Your task to perform on an android device: Search for a new phone on Amazon. Image 0: 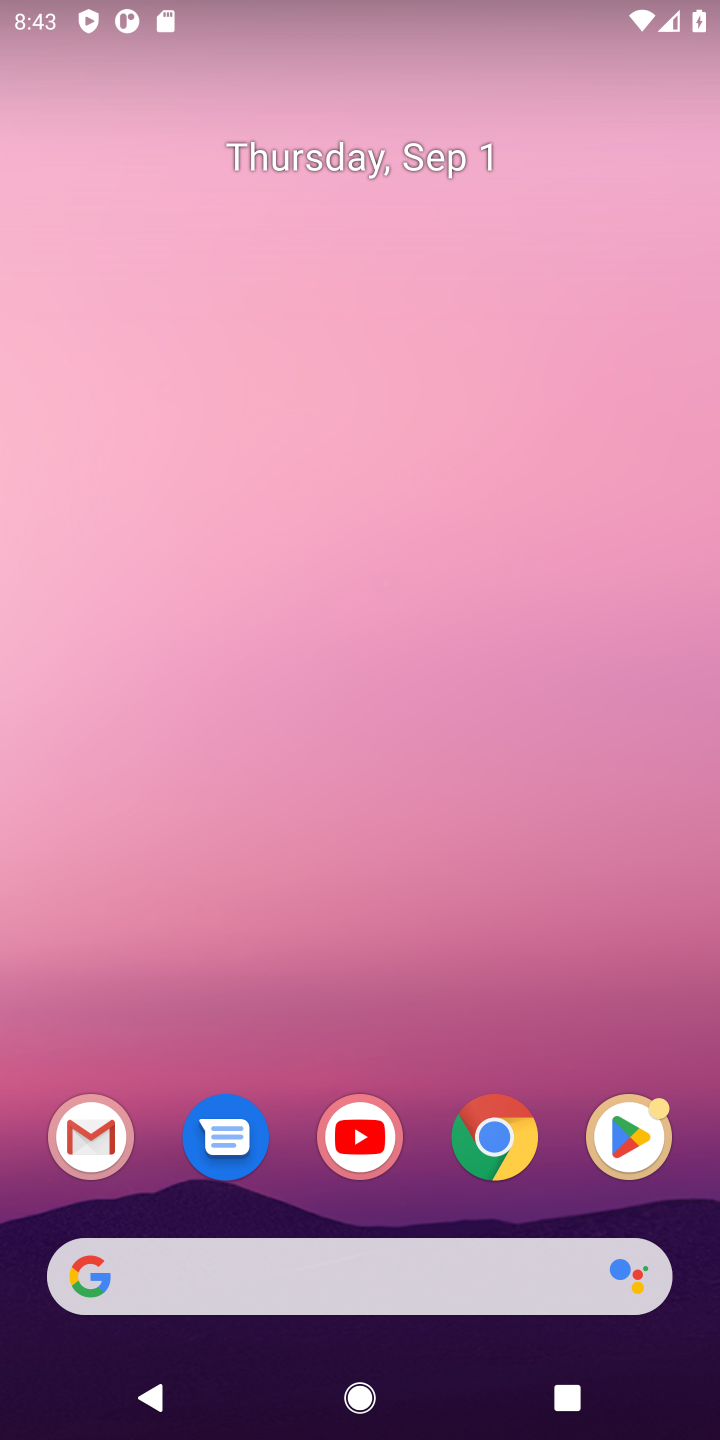
Step 0: press home button
Your task to perform on an android device: Search for a new phone on Amazon. Image 1: 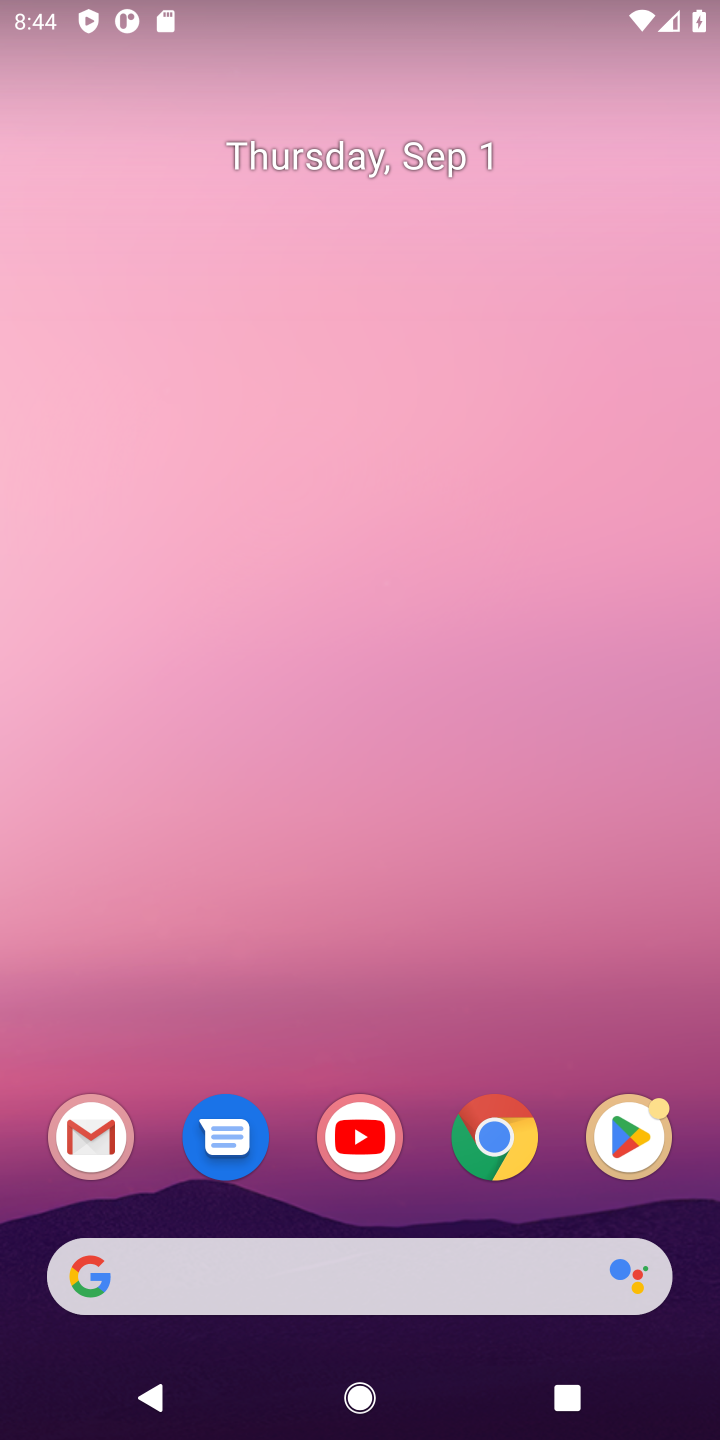
Step 1: drag from (420, 519) to (441, 22)
Your task to perform on an android device: Search for a new phone on Amazon. Image 2: 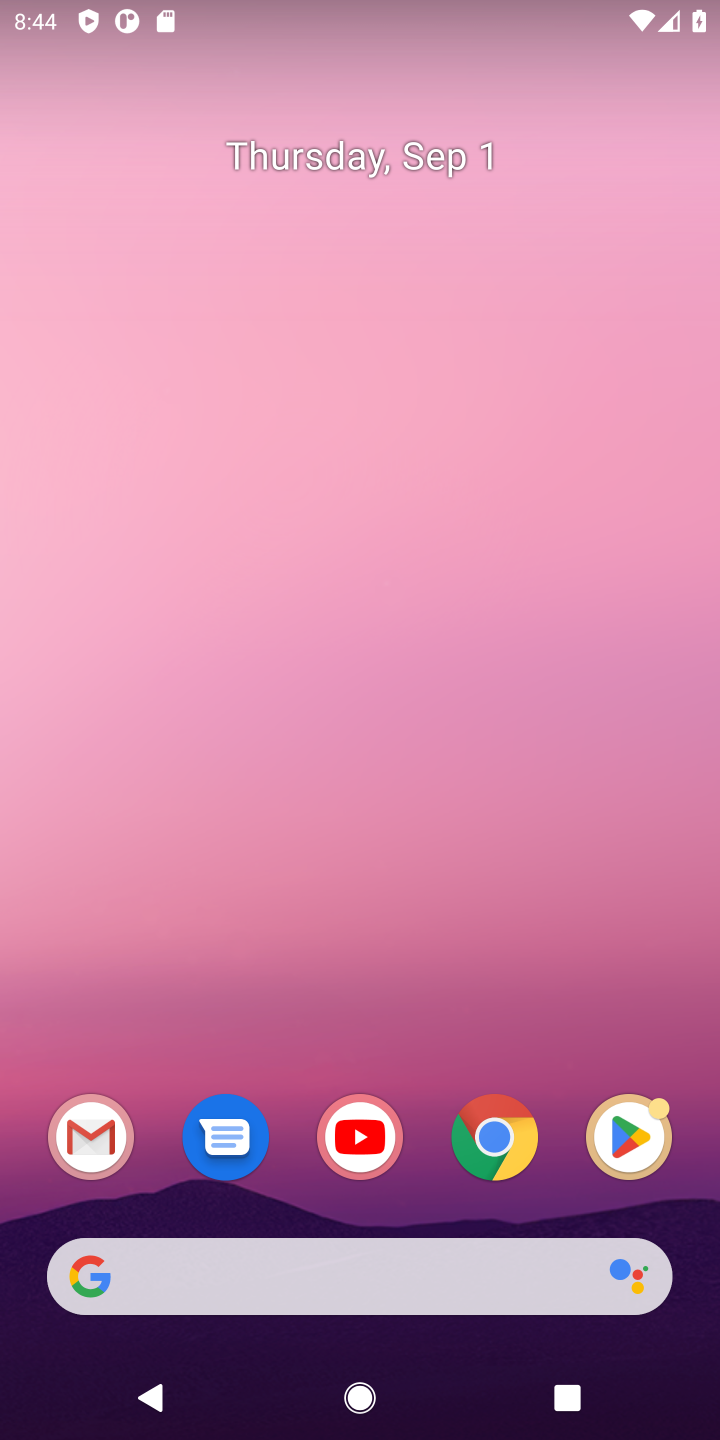
Step 2: drag from (381, 508) to (399, 0)
Your task to perform on an android device: Search for a new phone on Amazon. Image 3: 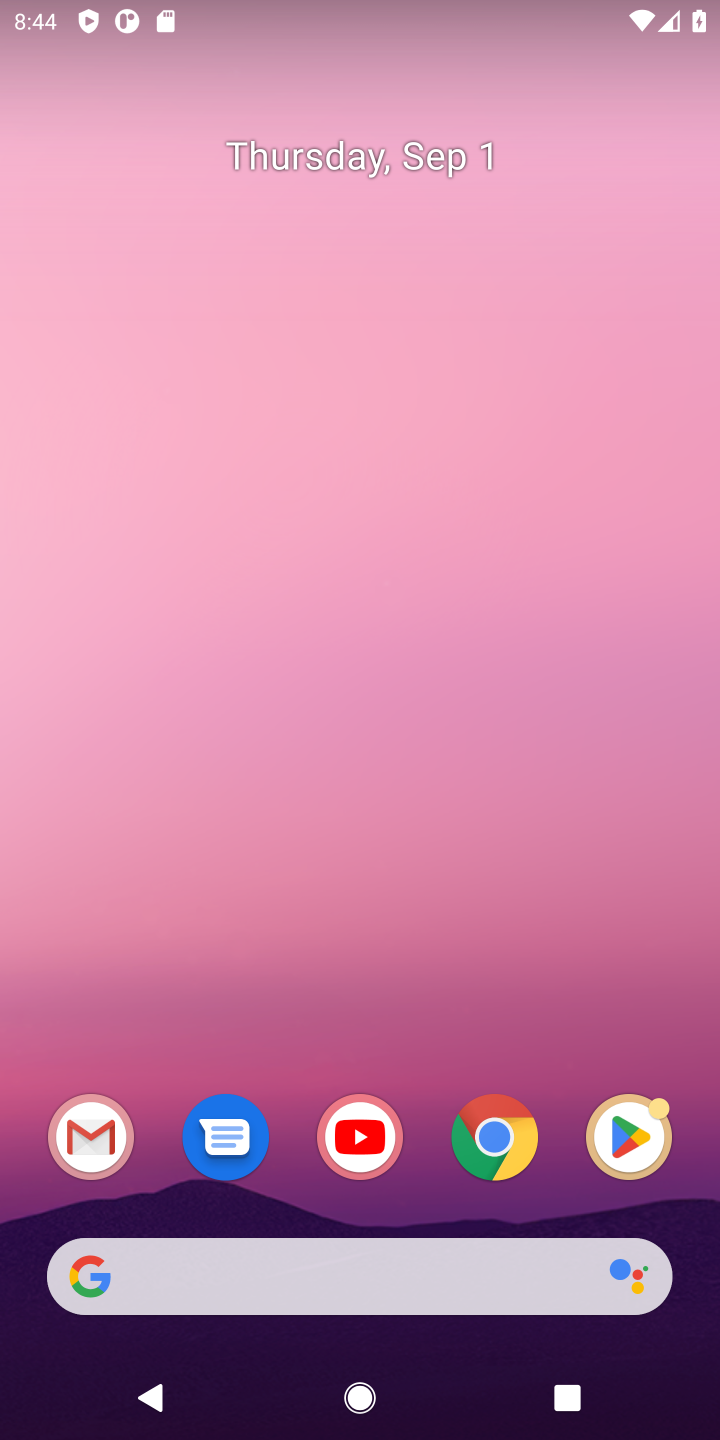
Step 3: drag from (419, 1083) to (448, 0)
Your task to perform on an android device: Search for a new phone on Amazon. Image 4: 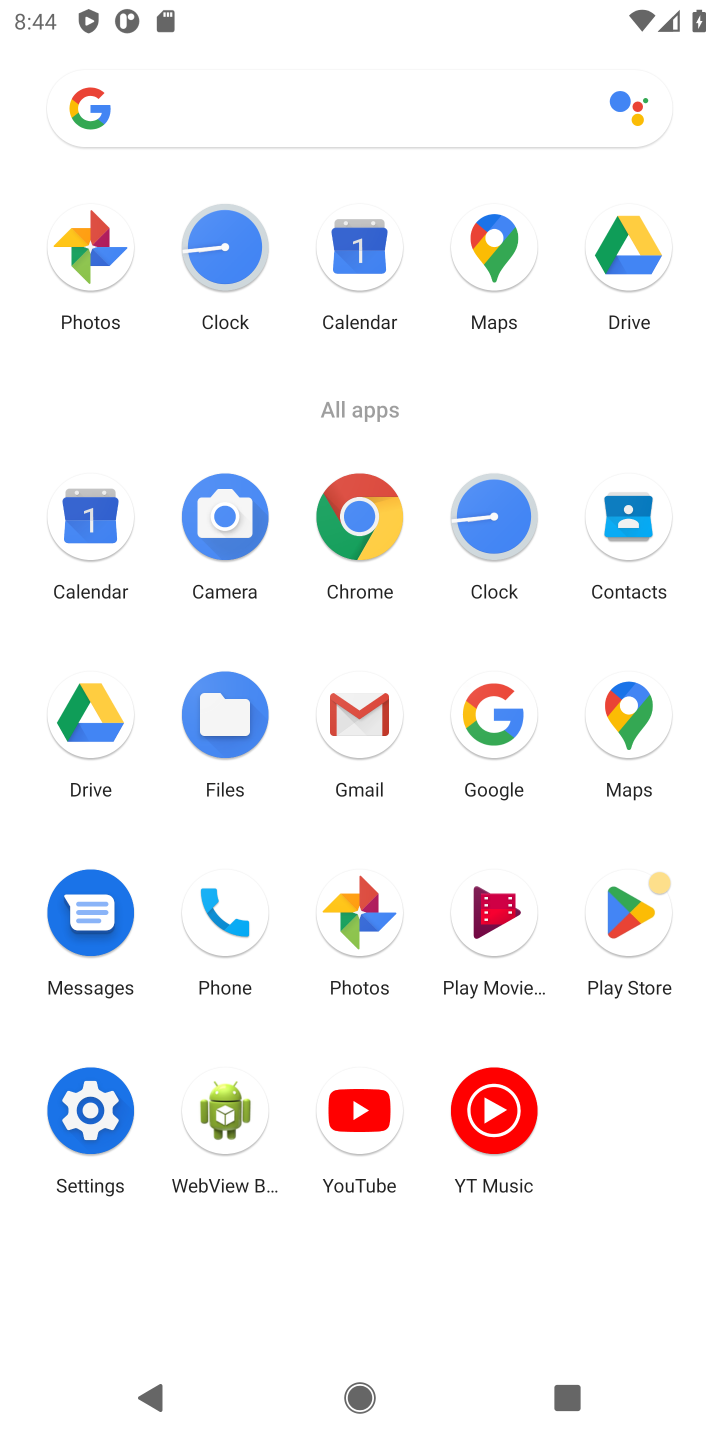
Step 4: click (357, 512)
Your task to perform on an android device: Search for a new phone on Amazon. Image 5: 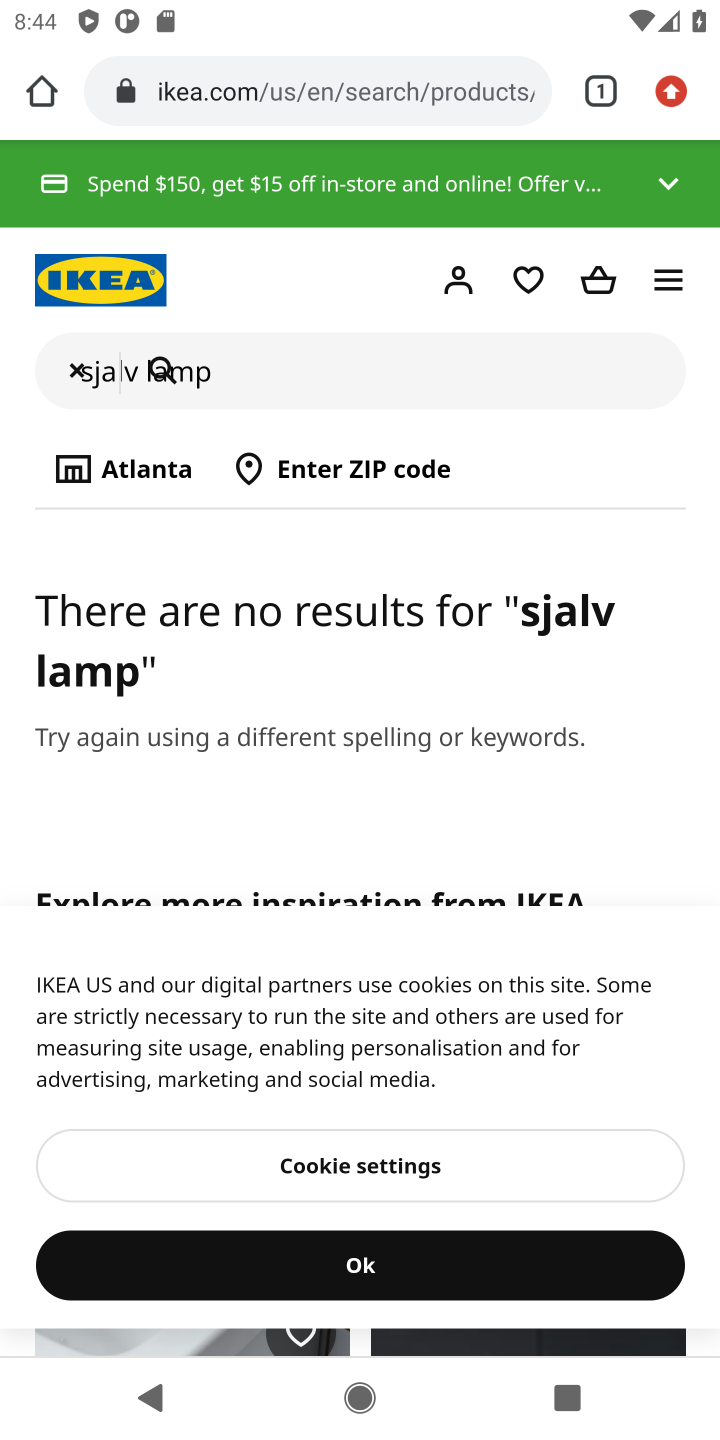
Step 5: click (599, 83)
Your task to perform on an android device: Search for a new phone on Amazon. Image 6: 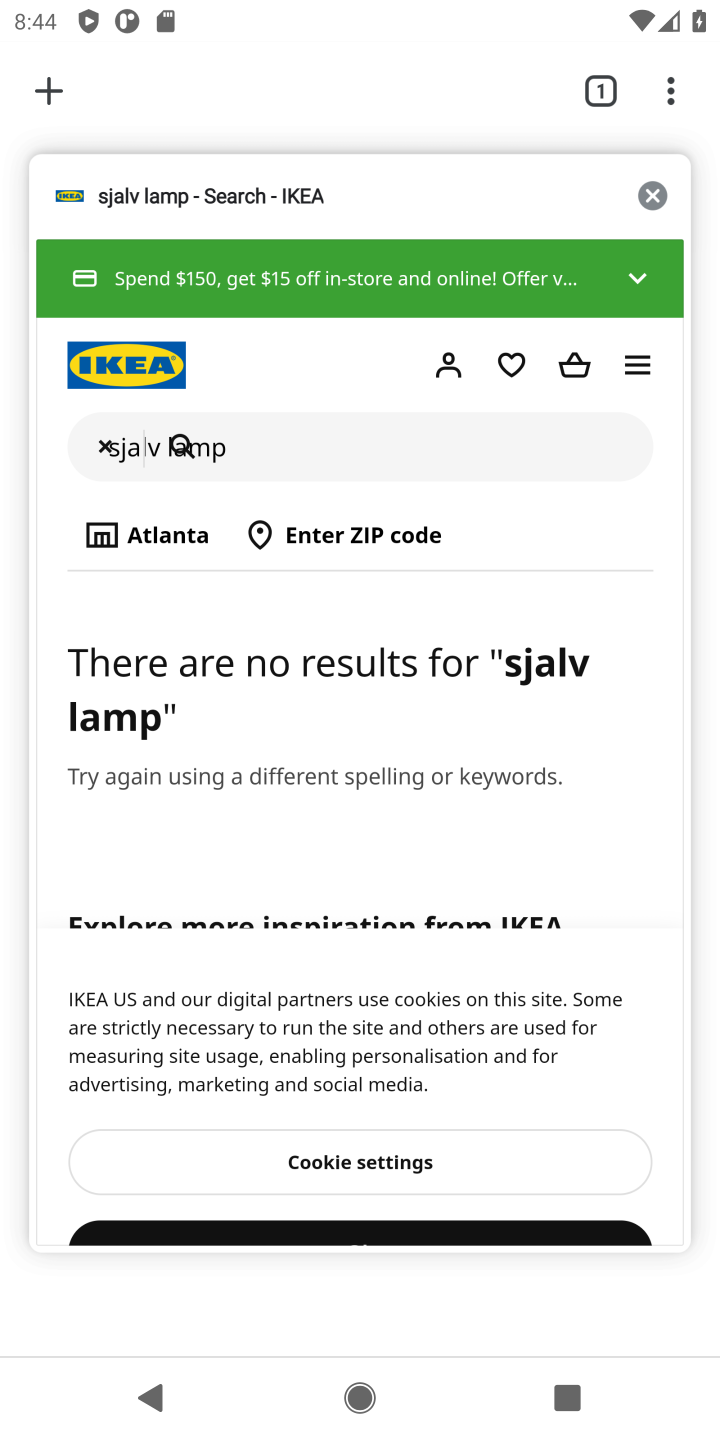
Step 6: click (648, 192)
Your task to perform on an android device: Search for a new phone on Amazon. Image 7: 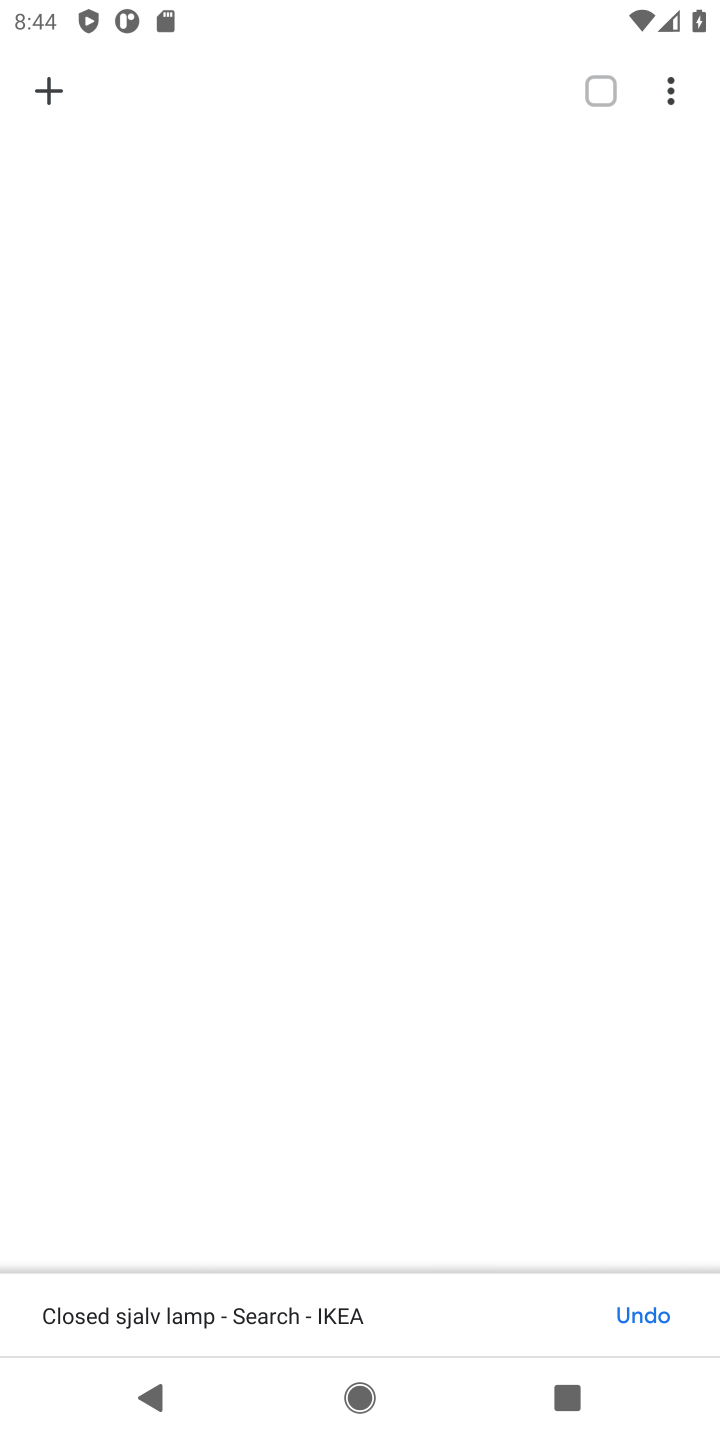
Step 7: click (56, 97)
Your task to perform on an android device: Search for a new phone on Amazon. Image 8: 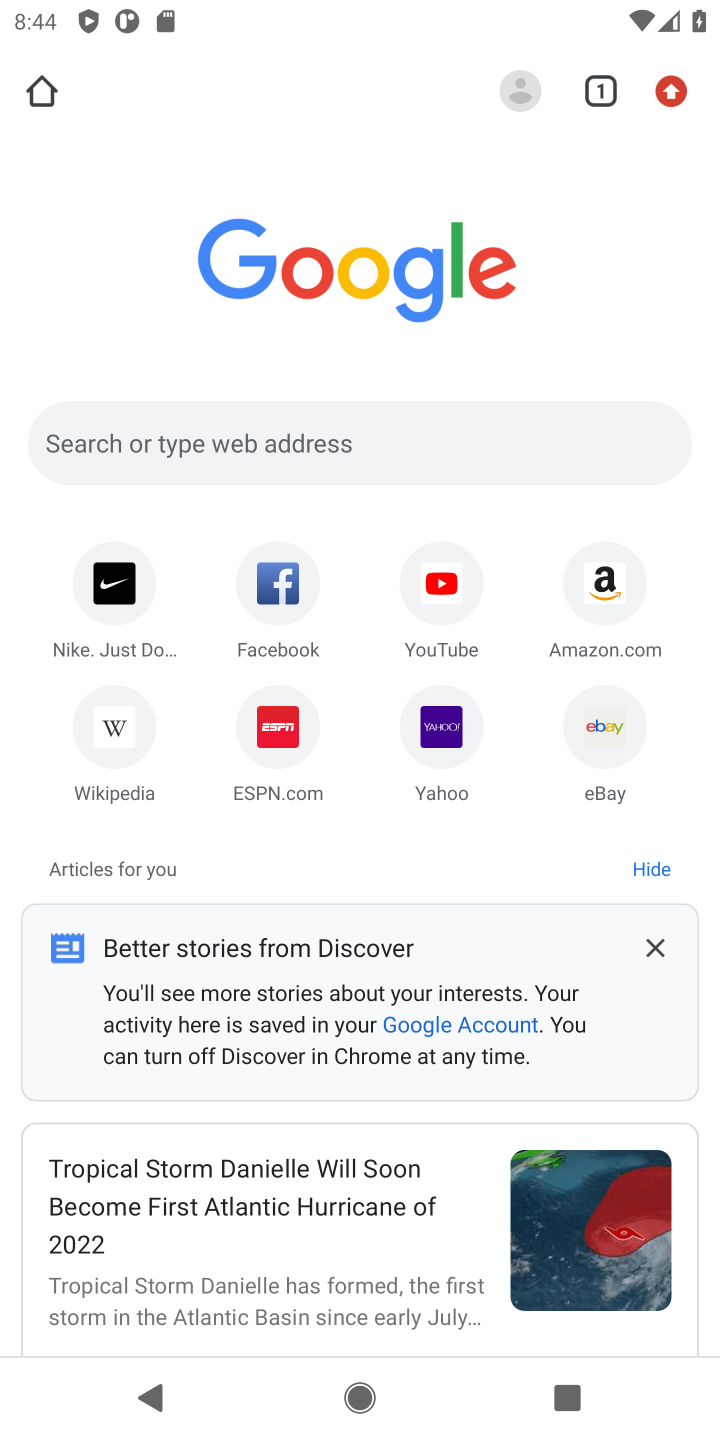
Step 8: click (182, 448)
Your task to perform on an android device: Search for a new phone on Amazon. Image 9: 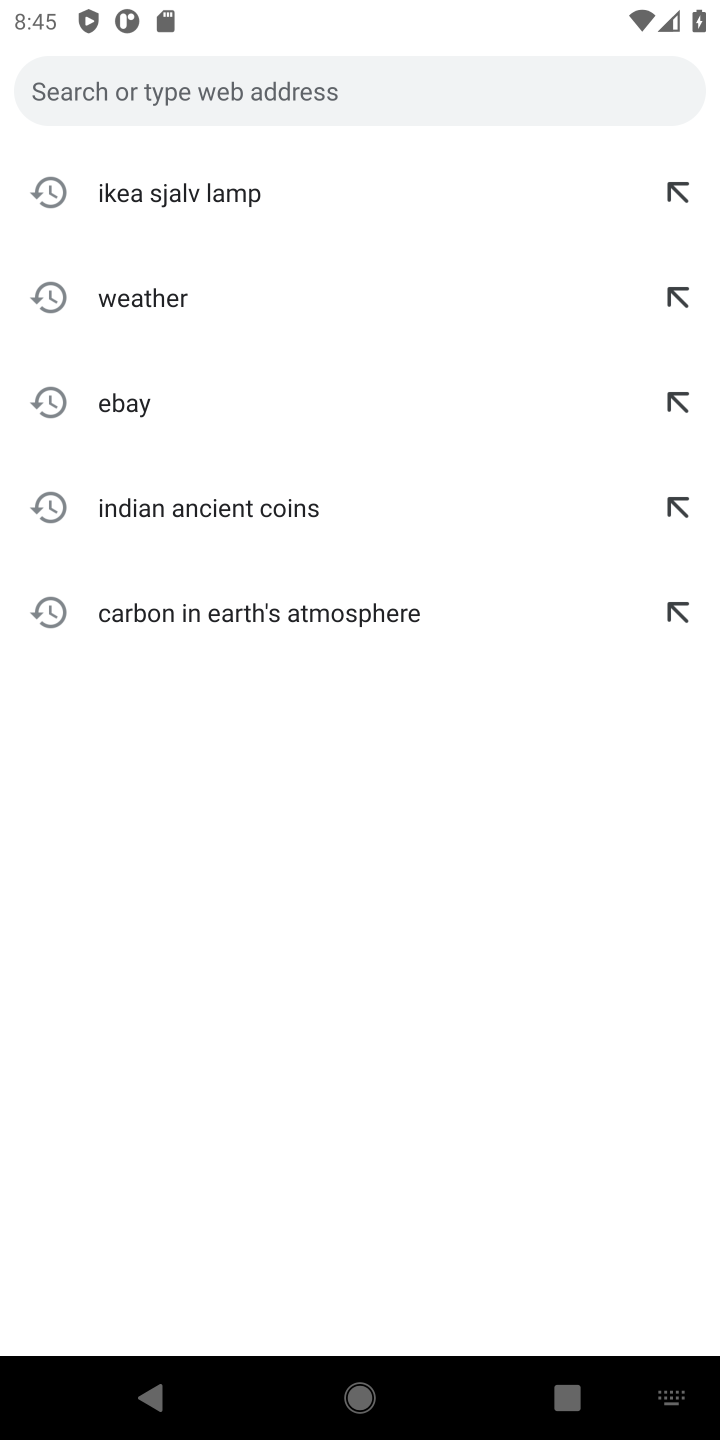
Step 9: press back button
Your task to perform on an android device: Search for a new phone on Amazon. Image 10: 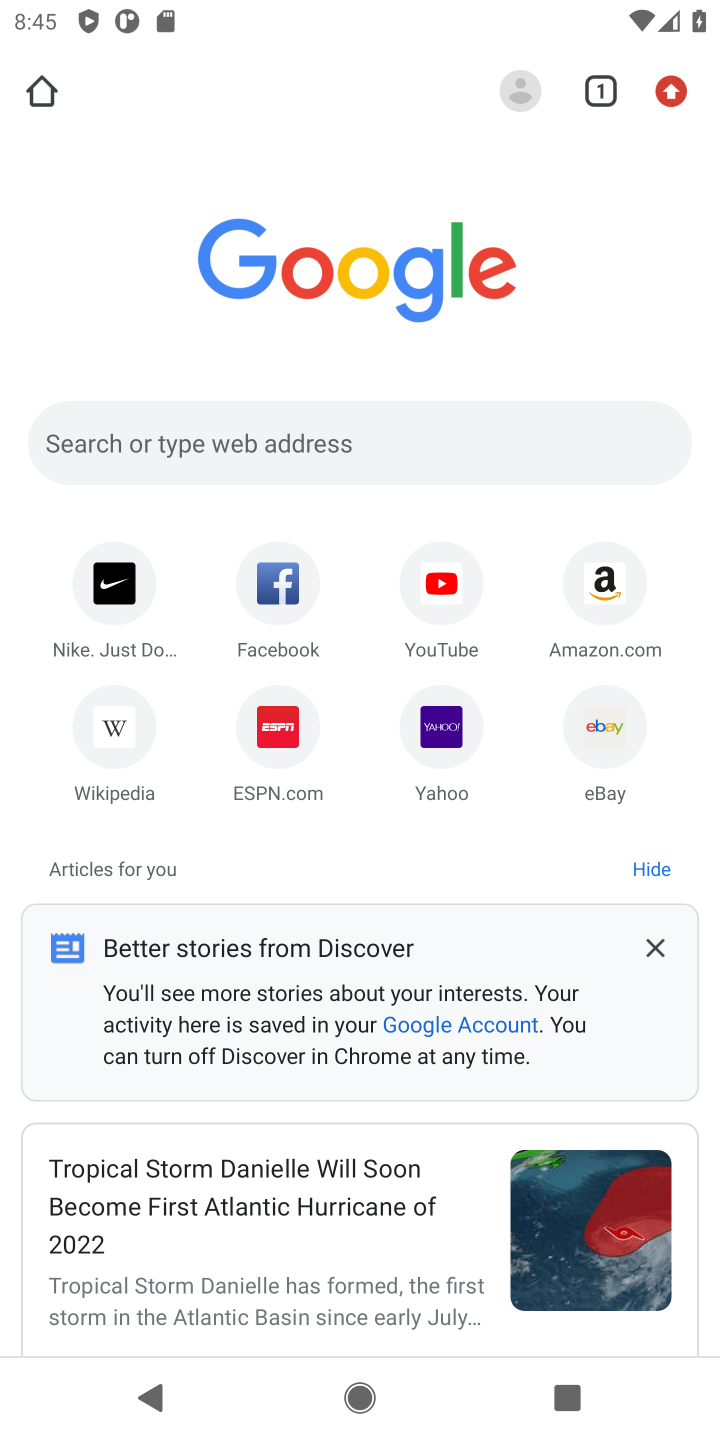
Step 10: click (589, 569)
Your task to perform on an android device: Search for a new phone on Amazon. Image 11: 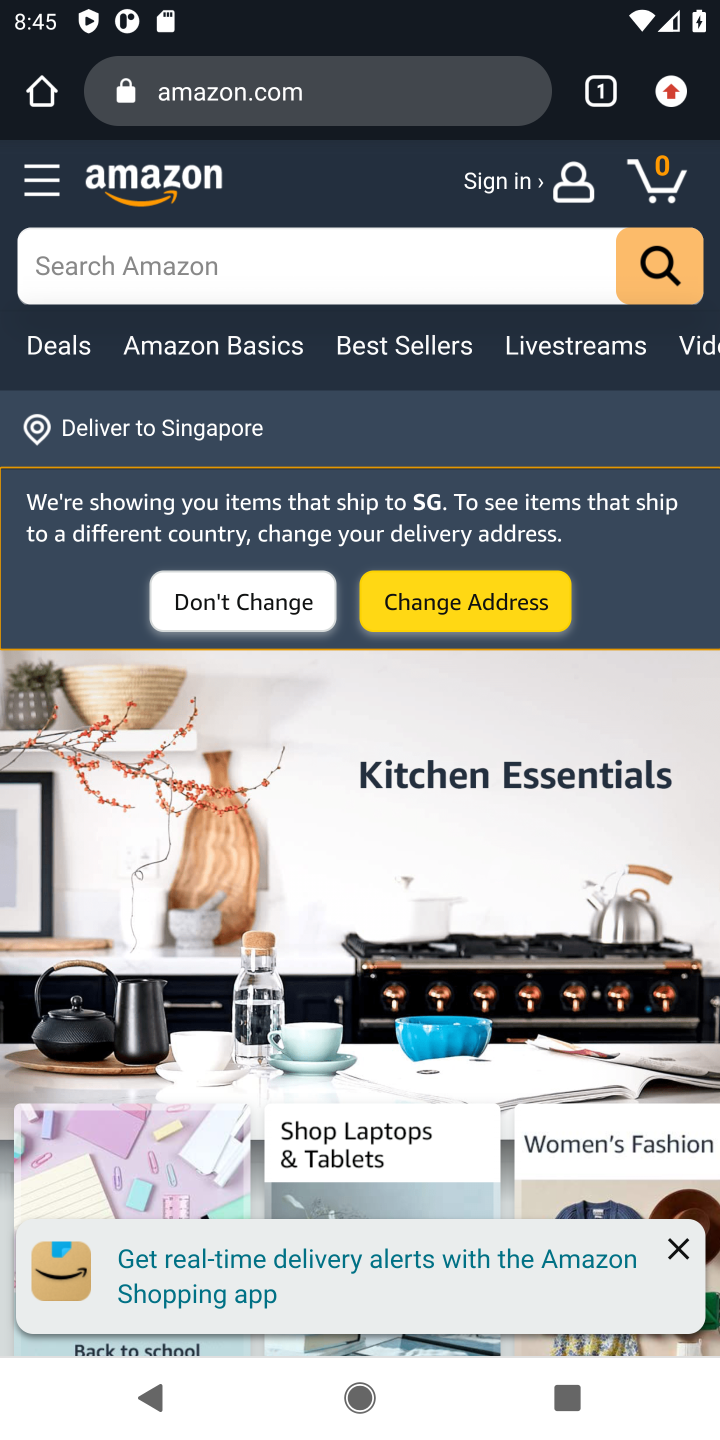
Step 11: click (181, 277)
Your task to perform on an android device: Search for a new phone on Amazon. Image 12: 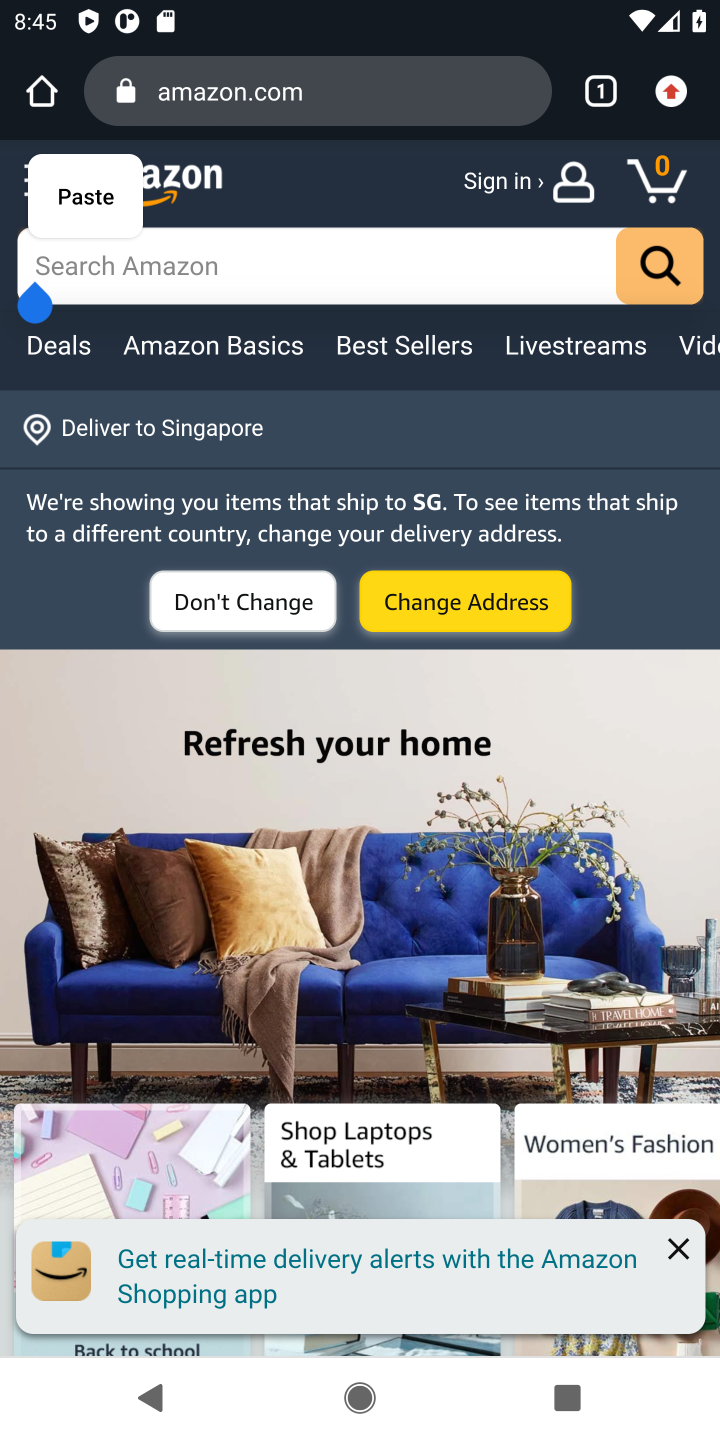
Step 12: type "new phone"
Your task to perform on an android device: Search for a new phone on Amazon. Image 13: 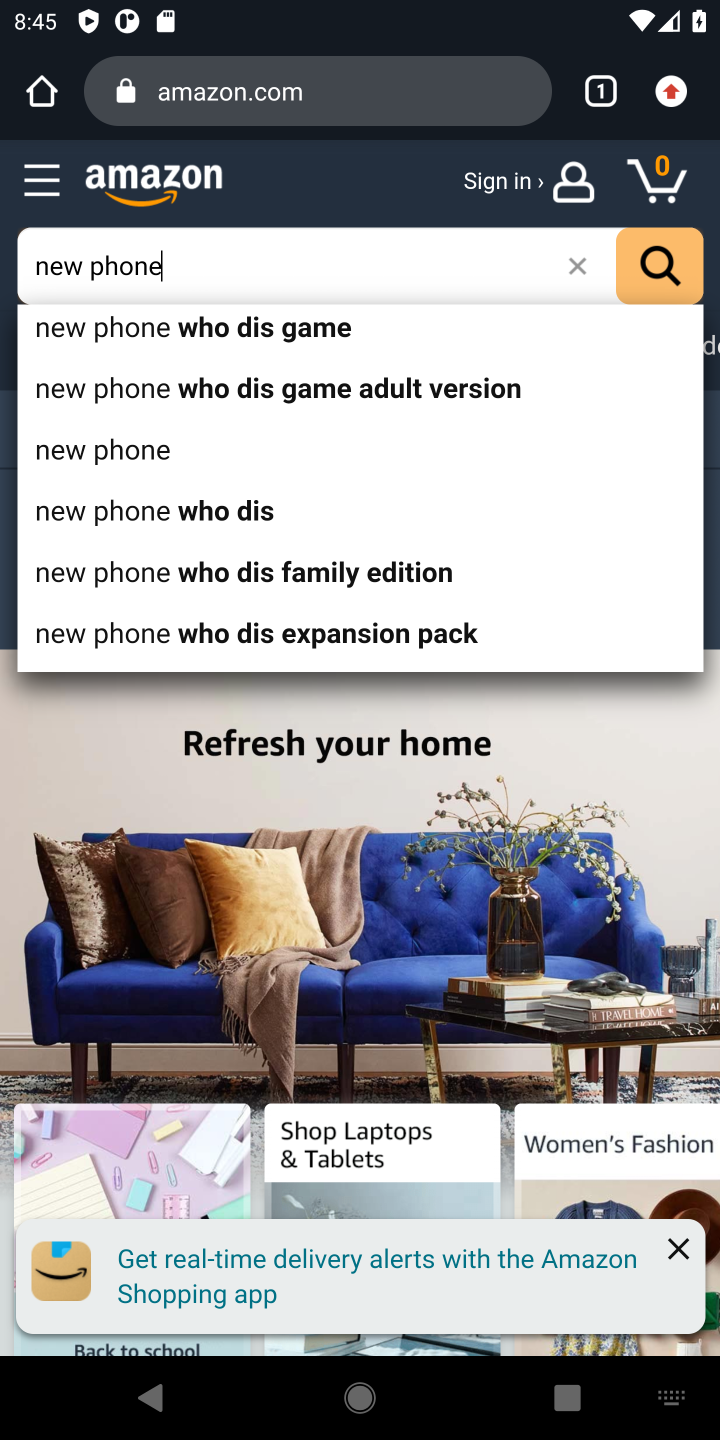
Step 13: click (182, 452)
Your task to perform on an android device: Search for a new phone on Amazon. Image 14: 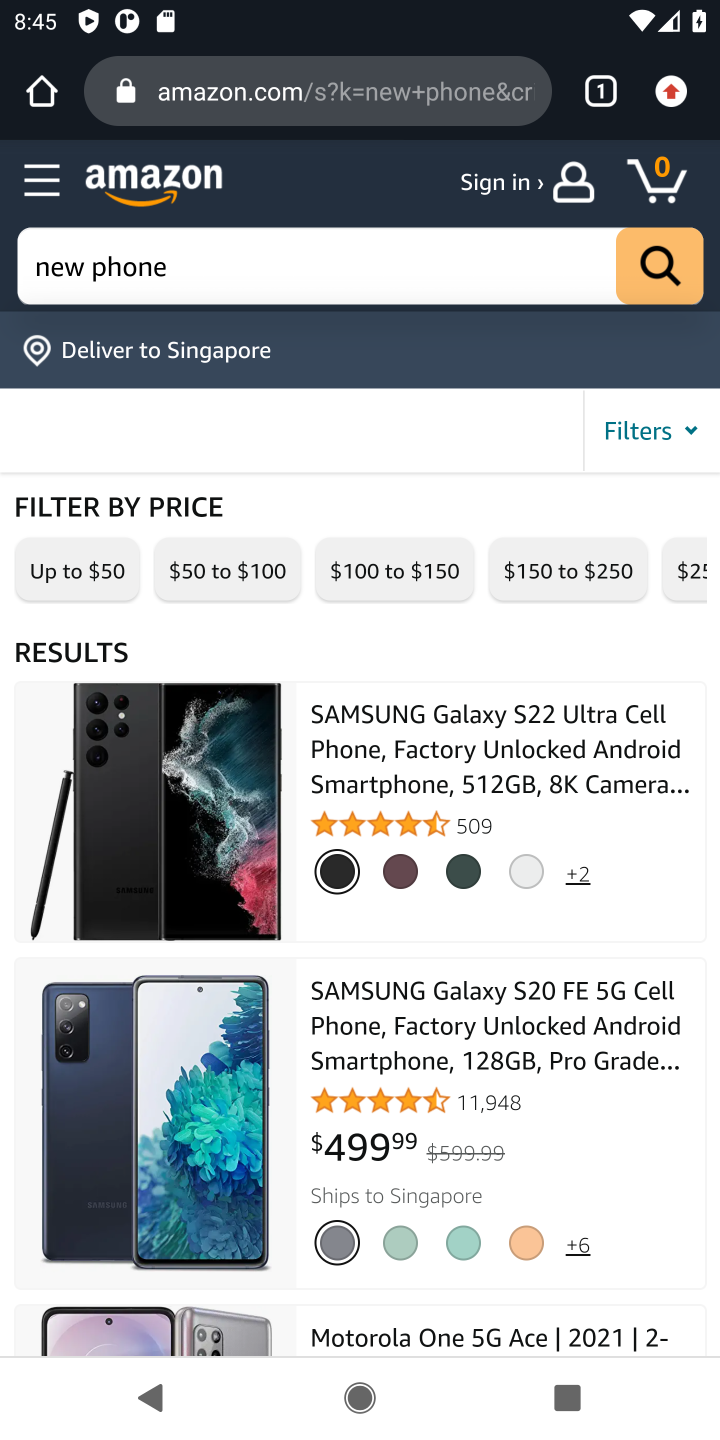
Step 14: task complete